Your task to perform on an android device: Open battery settings Image 0: 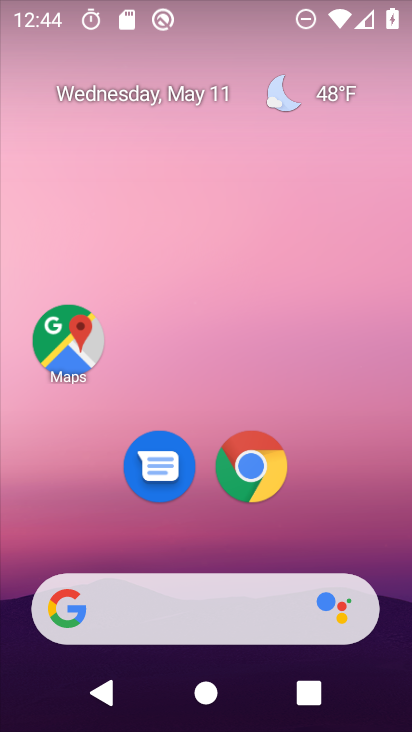
Step 0: drag from (202, 544) to (248, 56)
Your task to perform on an android device: Open battery settings Image 1: 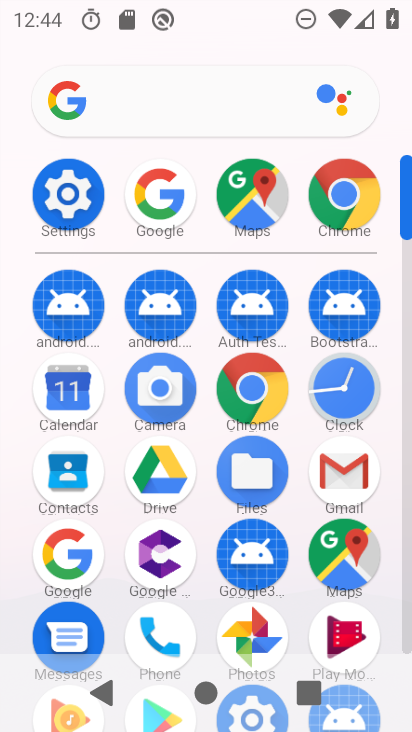
Step 1: click (80, 190)
Your task to perform on an android device: Open battery settings Image 2: 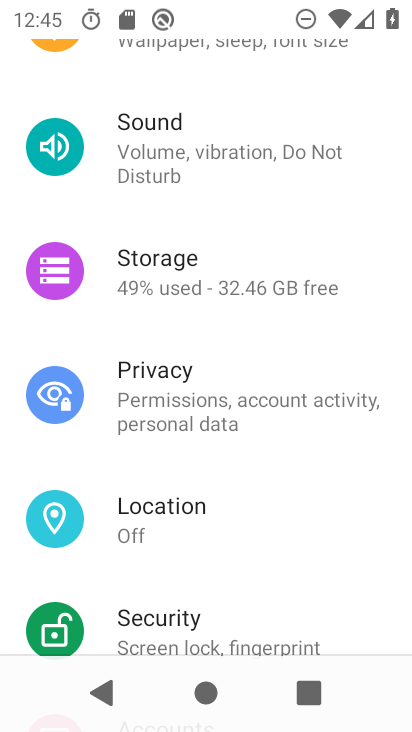
Step 2: drag from (169, 160) to (190, 690)
Your task to perform on an android device: Open battery settings Image 3: 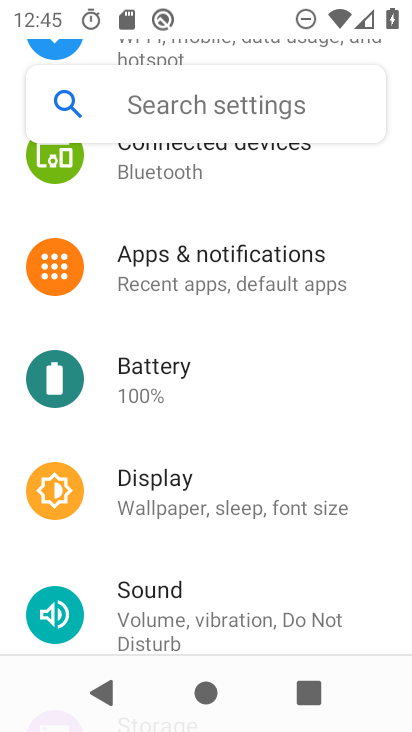
Step 3: click (193, 371)
Your task to perform on an android device: Open battery settings Image 4: 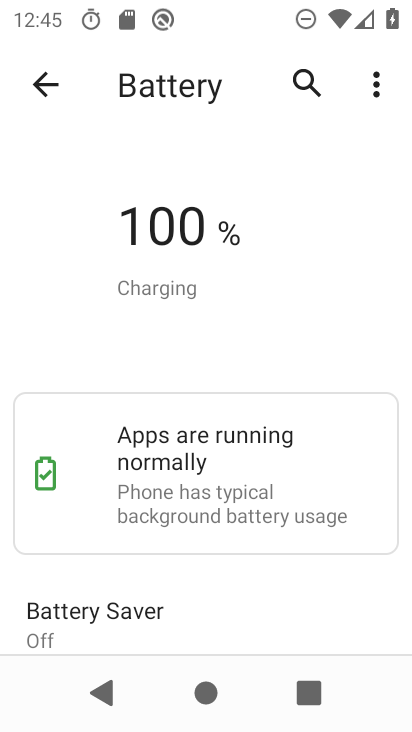
Step 4: drag from (188, 605) to (204, 255)
Your task to perform on an android device: Open battery settings Image 5: 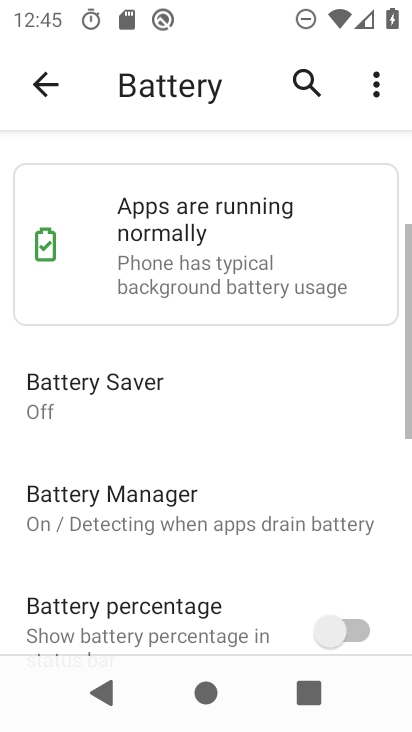
Step 5: click (211, 151)
Your task to perform on an android device: Open battery settings Image 6: 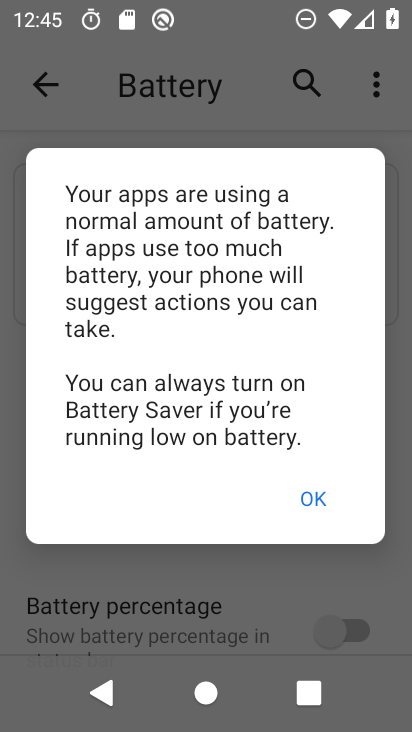
Step 6: click (314, 498)
Your task to perform on an android device: Open battery settings Image 7: 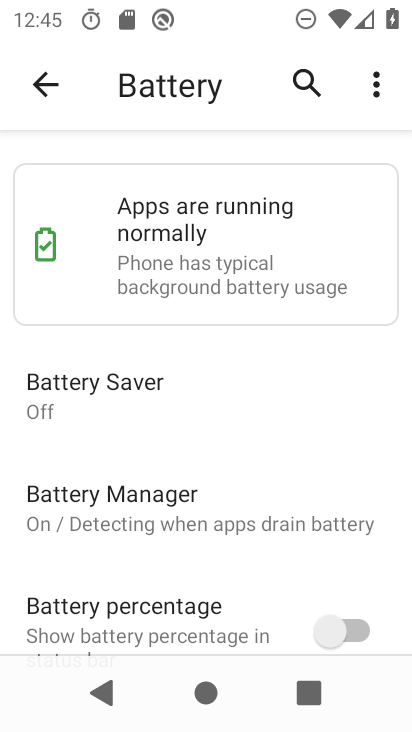
Step 7: task complete